Your task to perform on an android device: see sites visited before in the chrome app Image 0: 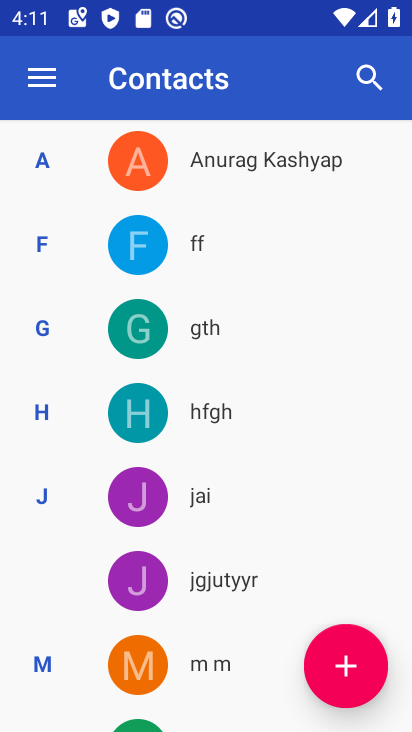
Step 0: press back button
Your task to perform on an android device: see sites visited before in the chrome app Image 1: 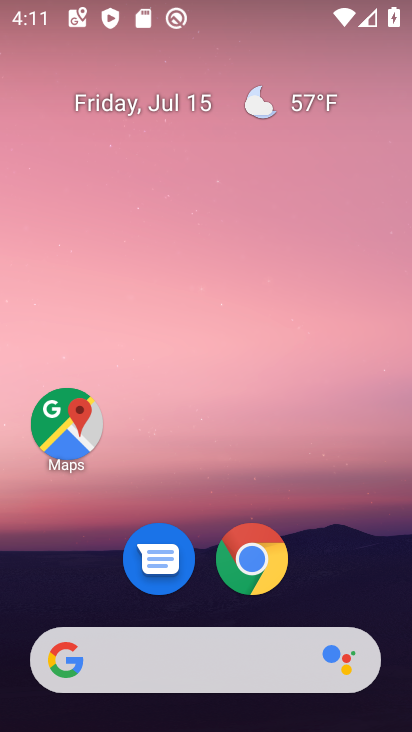
Step 1: click (249, 555)
Your task to perform on an android device: see sites visited before in the chrome app Image 2: 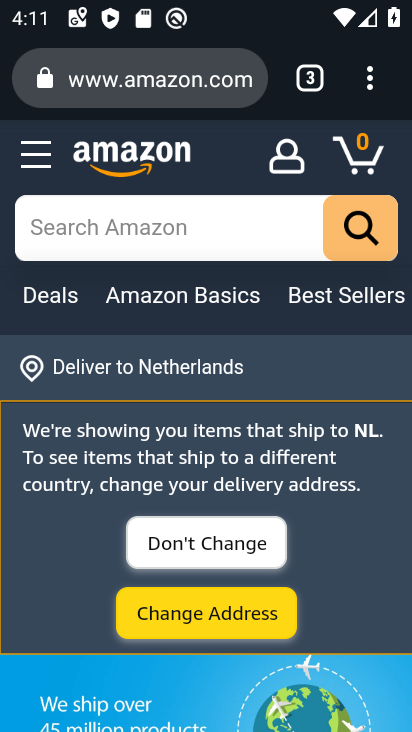
Step 2: task complete